Your task to perform on an android device: open app "Calculator" Image 0: 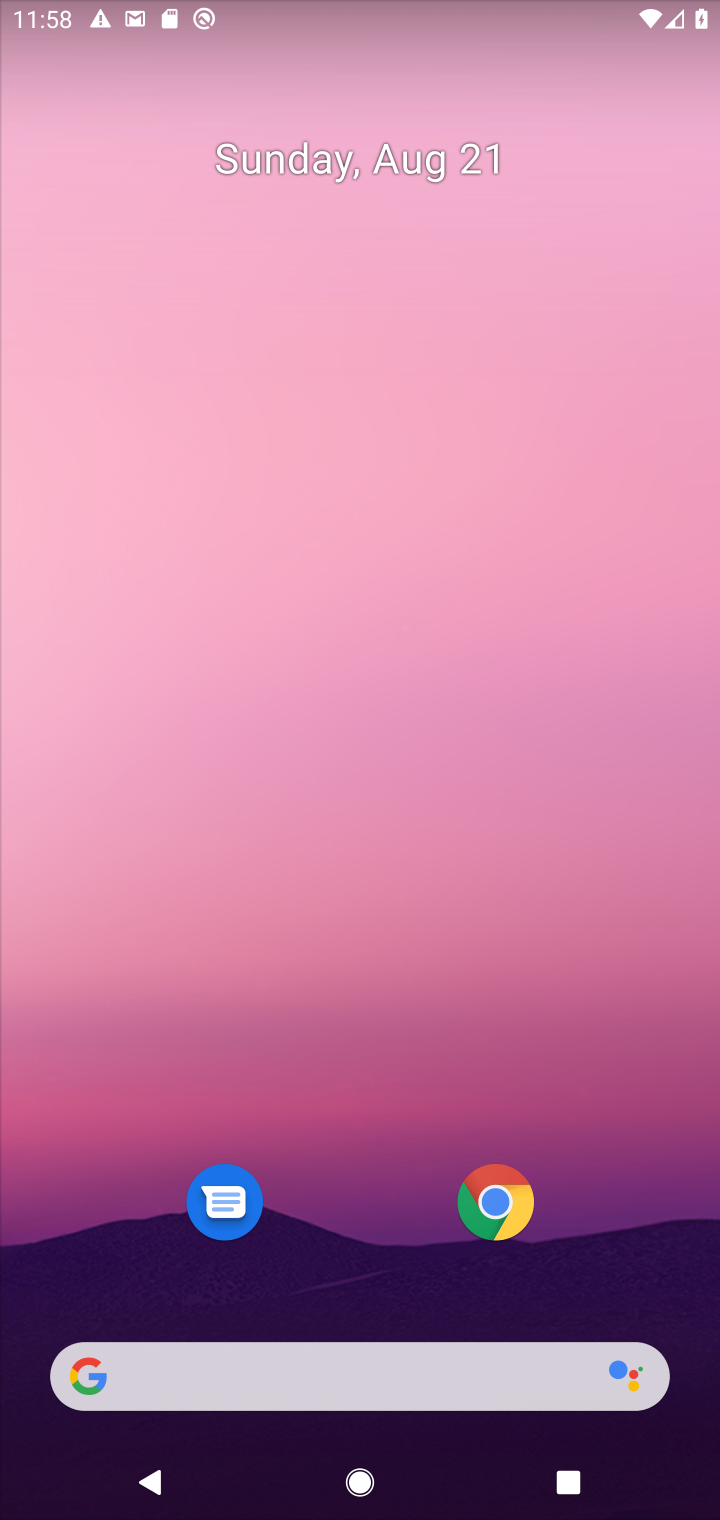
Step 0: drag from (363, 1330) to (307, 93)
Your task to perform on an android device: open app "Calculator" Image 1: 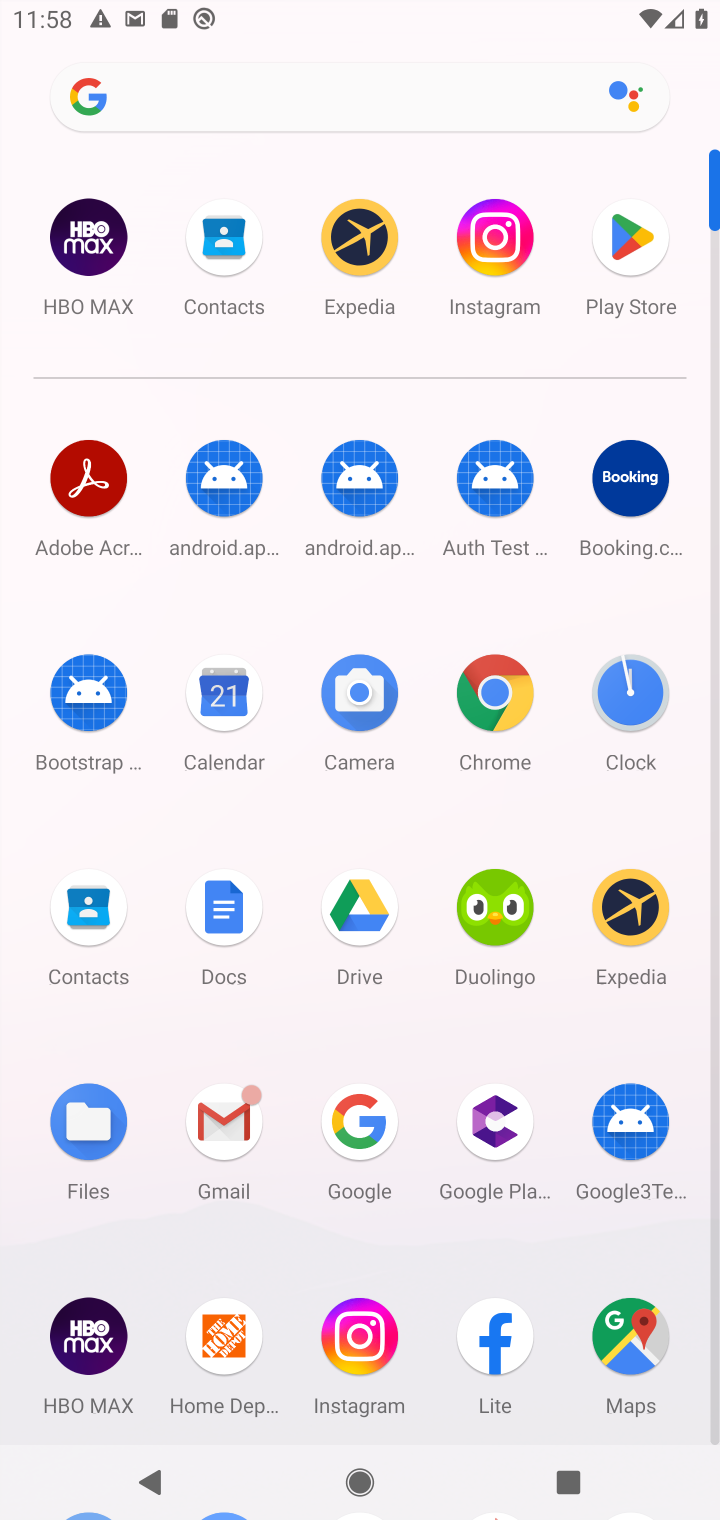
Step 1: click (629, 243)
Your task to perform on an android device: open app "Calculator" Image 2: 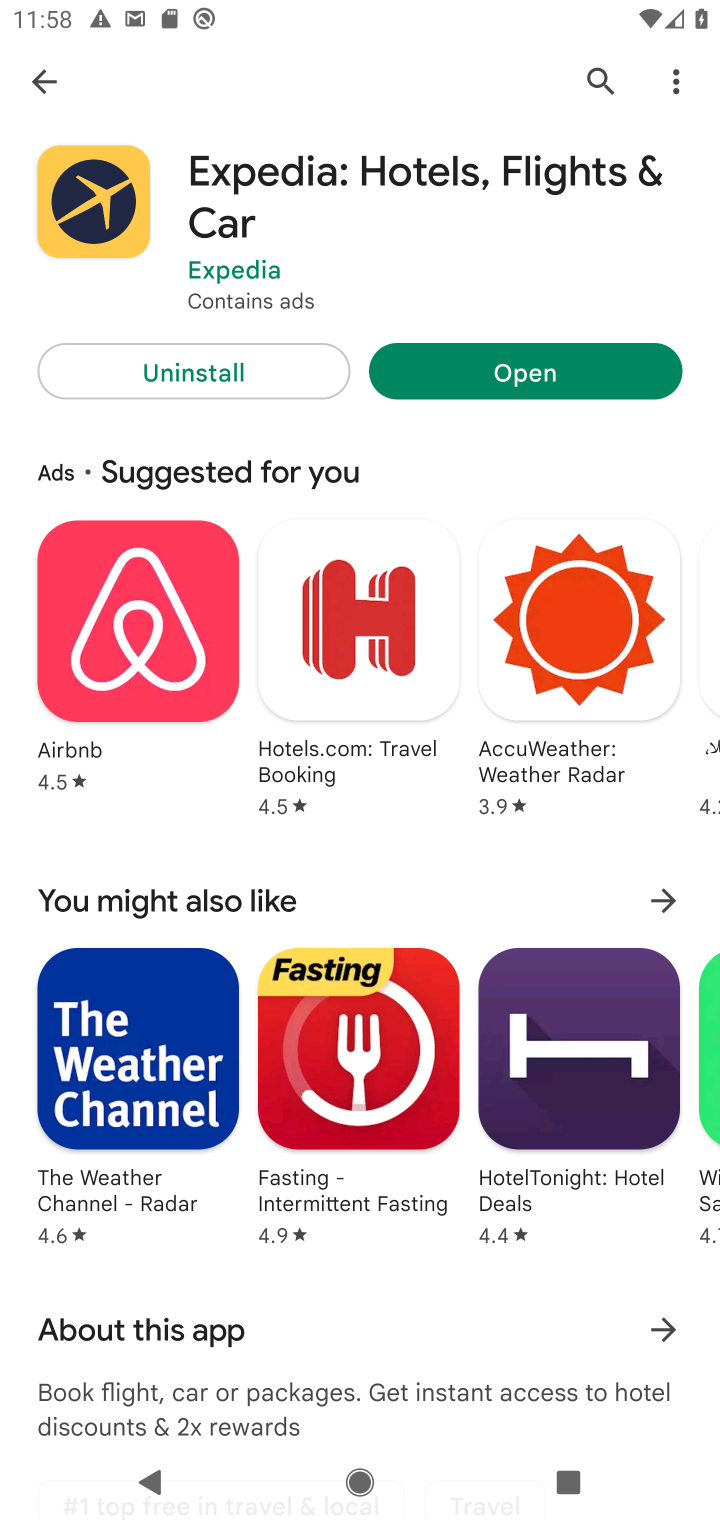
Step 2: click (596, 63)
Your task to perform on an android device: open app "Calculator" Image 3: 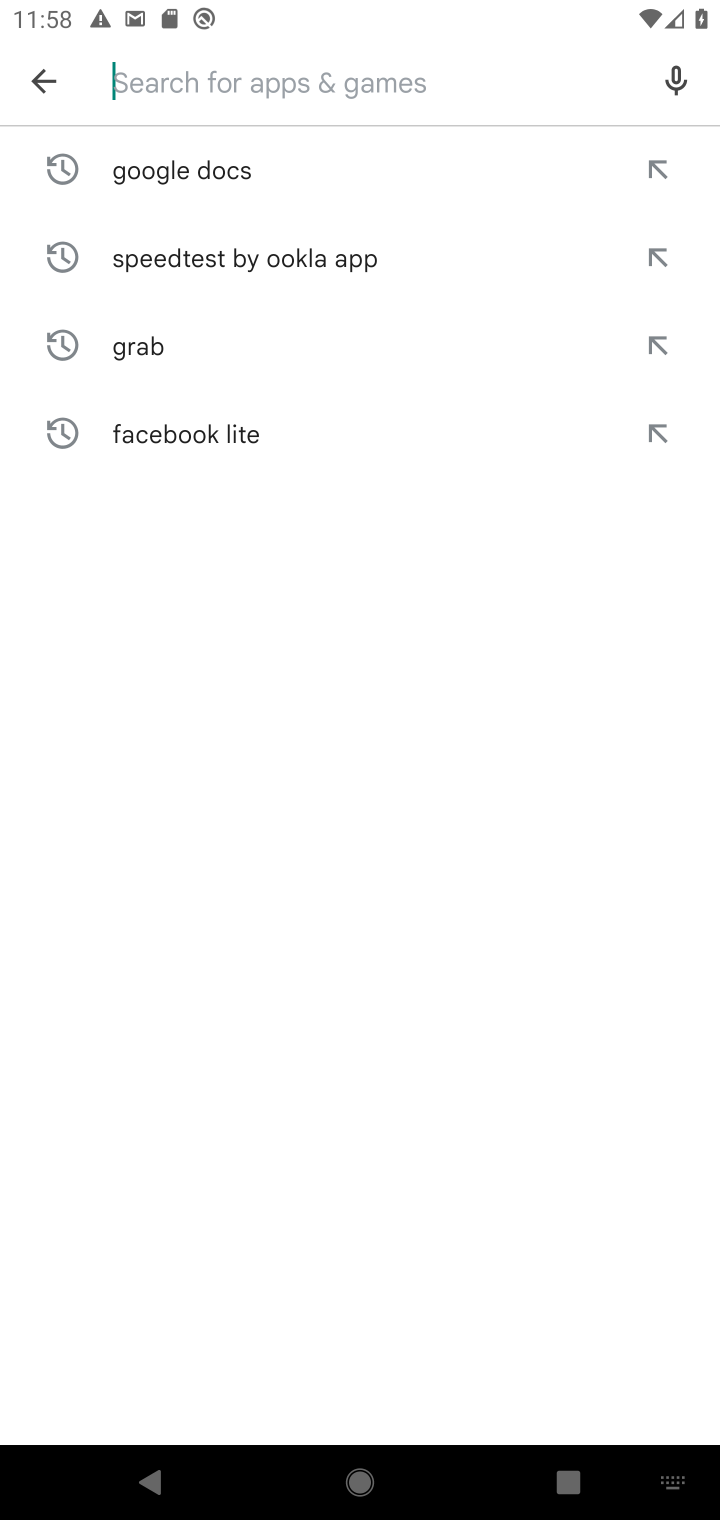
Step 3: type "Calculator"
Your task to perform on an android device: open app "Calculator" Image 4: 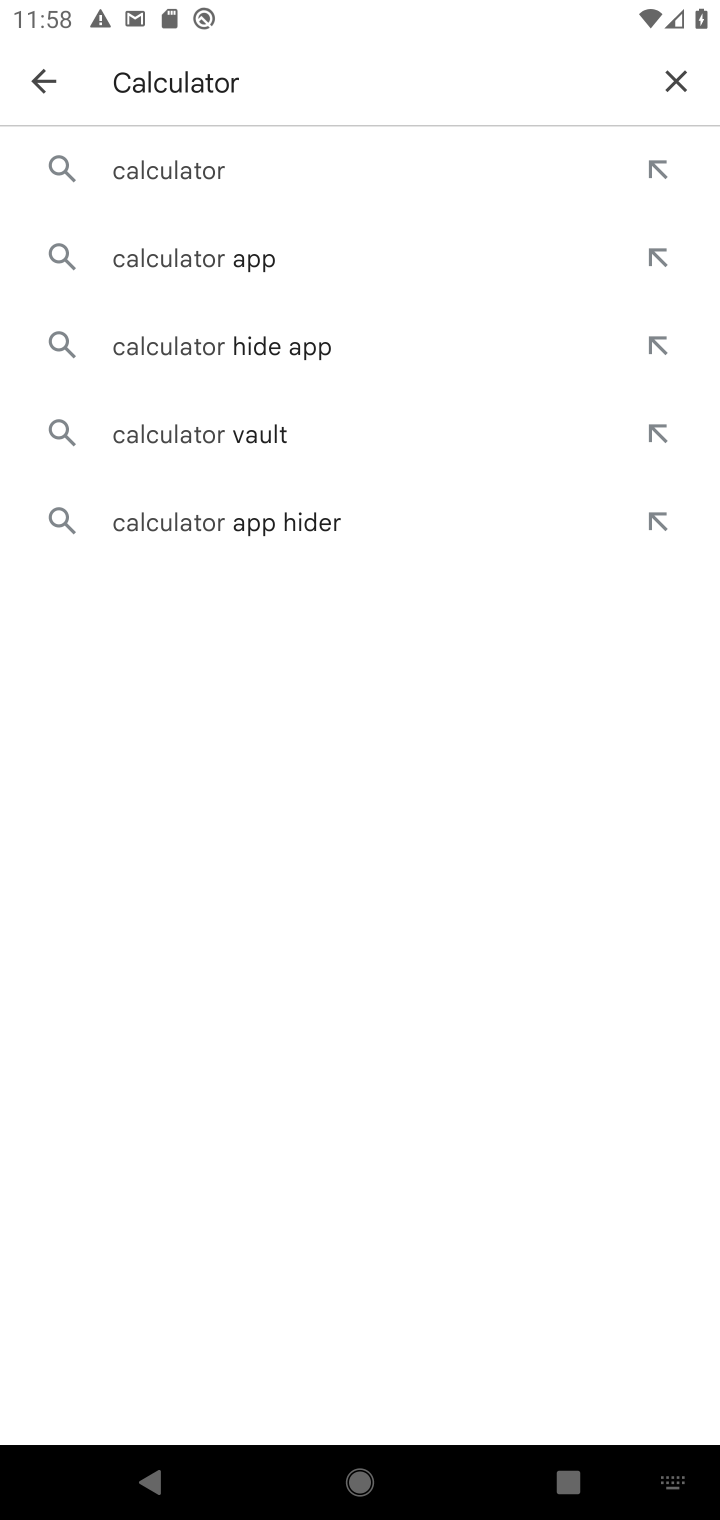
Step 4: click (135, 169)
Your task to perform on an android device: open app "Calculator" Image 5: 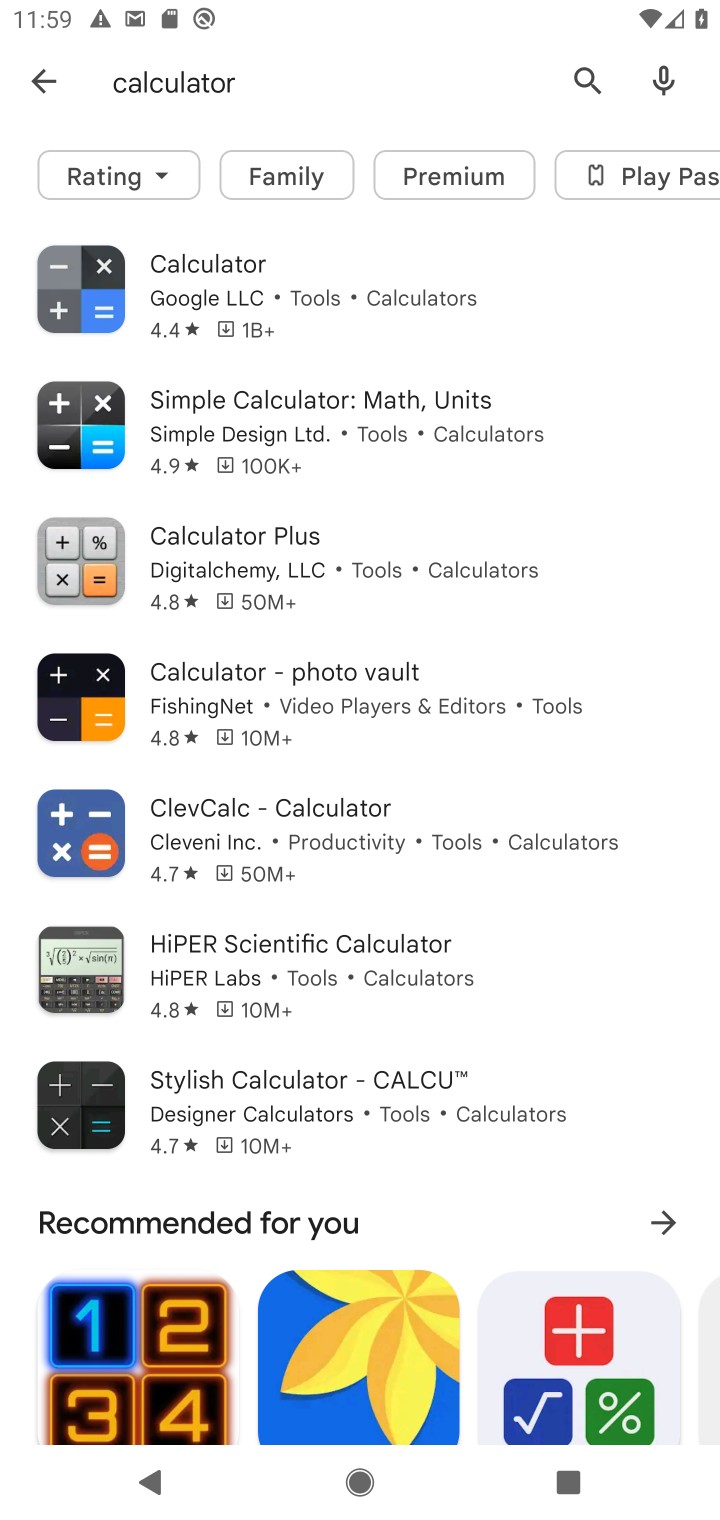
Step 5: click (193, 278)
Your task to perform on an android device: open app "Calculator" Image 6: 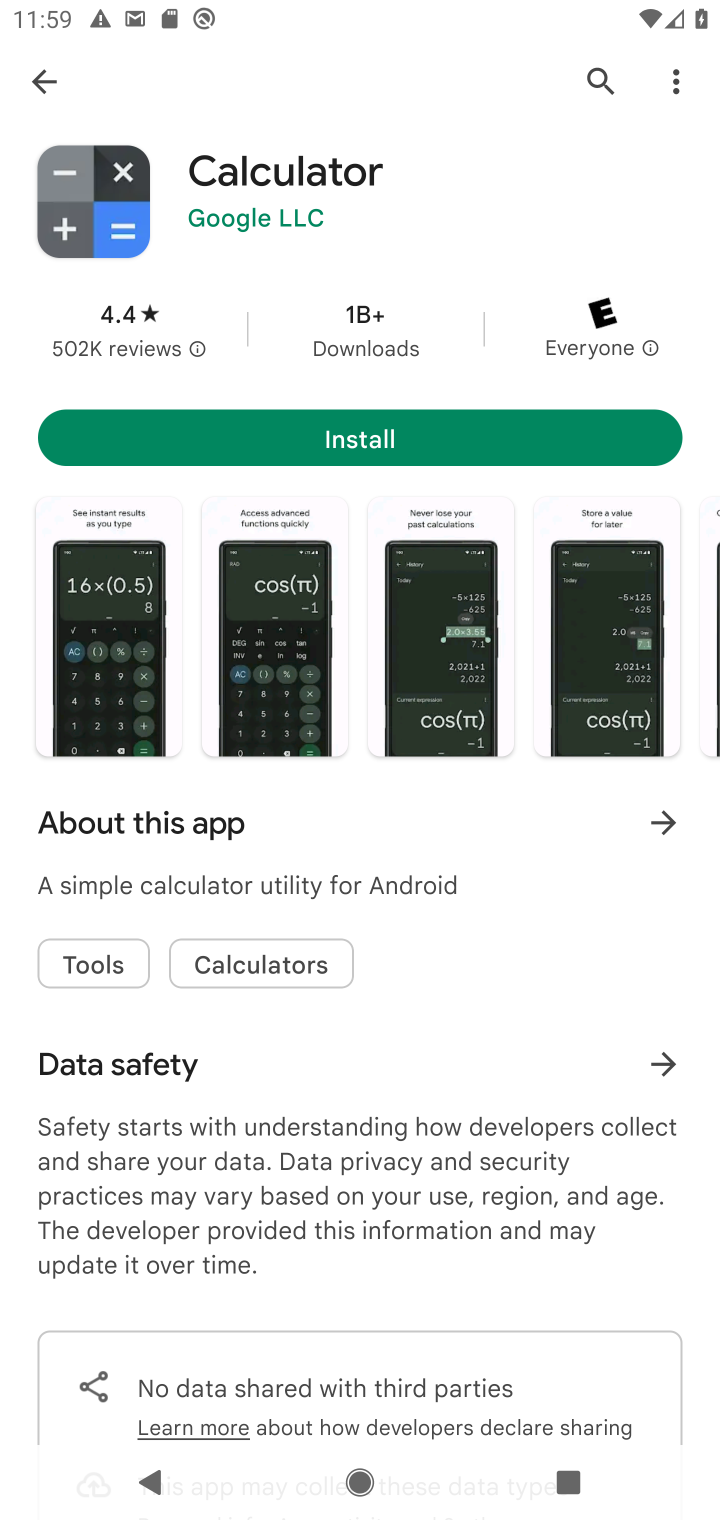
Step 6: task complete